Your task to perform on an android device: turn notification dots on Image 0: 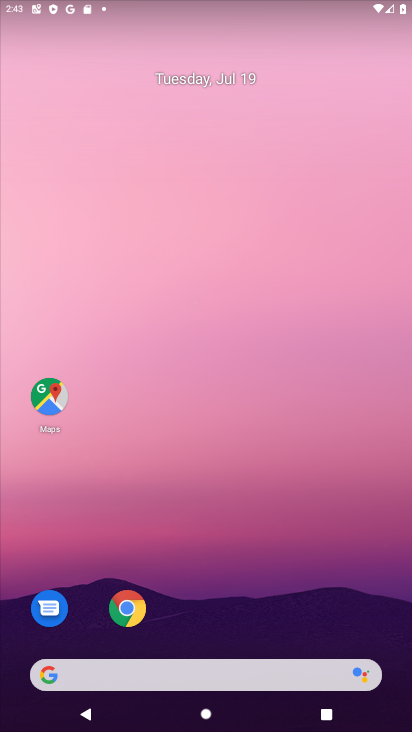
Step 0: drag from (262, 611) to (181, 204)
Your task to perform on an android device: turn notification dots on Image 1: 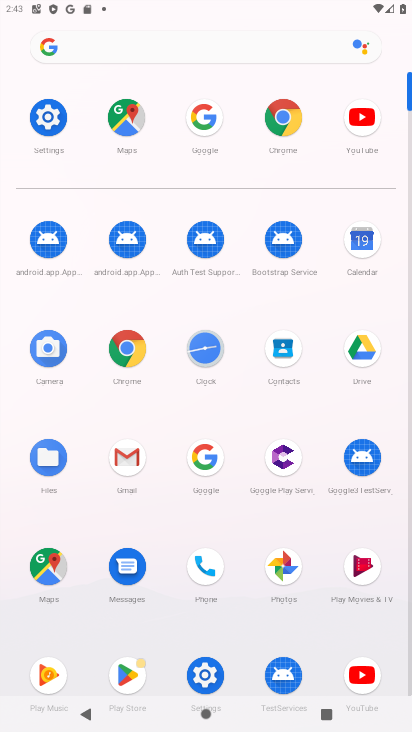
Step 1: click (43, 122)
Your task to perform on an android device: turn notification dots on Image 2: 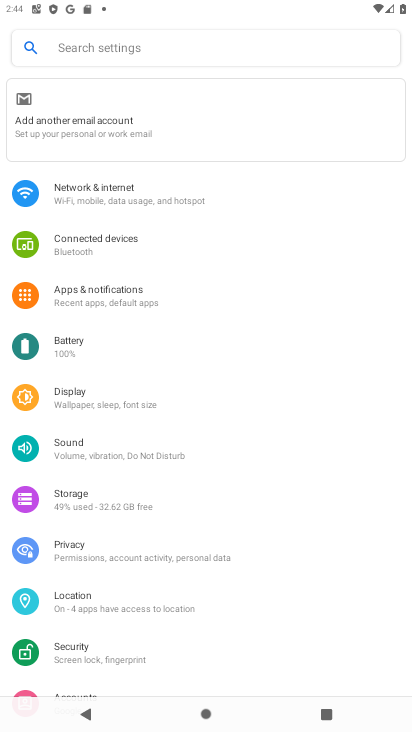
Step 2: click (115, 294)
Your task to perform on an android device: turn notification dots on Image 3: 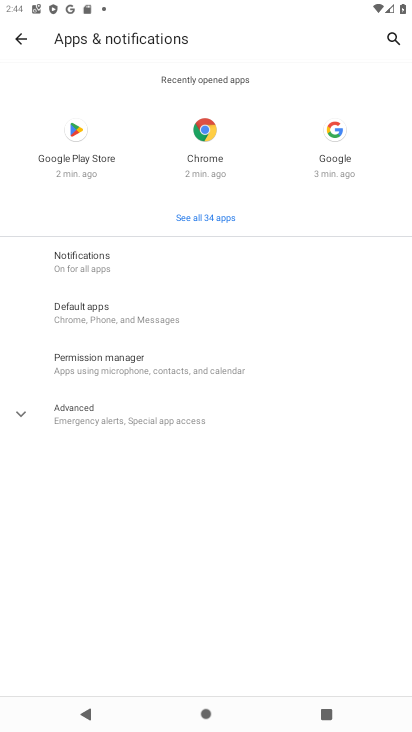
Step 3: click (93, 267)
Your task to perform on an android device: turn notification dots on Image 4: 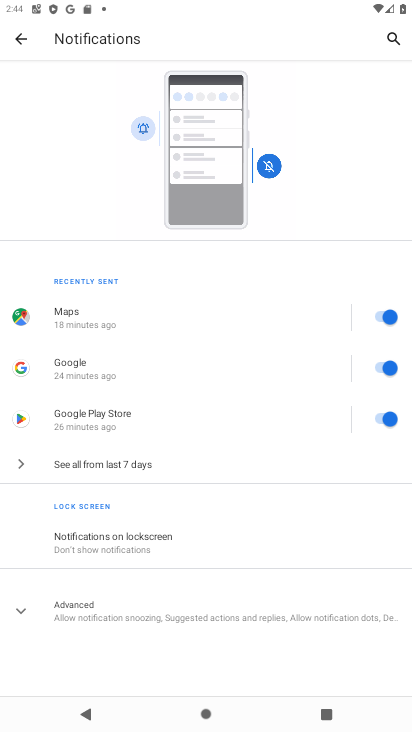
Step 4: click (150, 609)
Your task to perform on an android device: turn notification dots on Image 5: 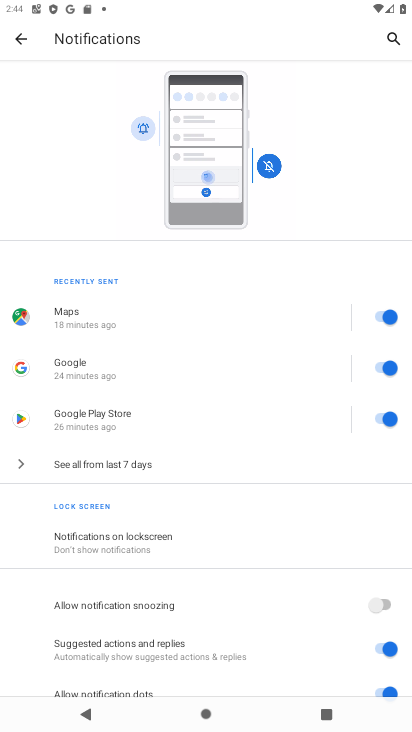
Step 5: task complete